Your task to perform on an android device: uninstall "Google Docs" Image 0: 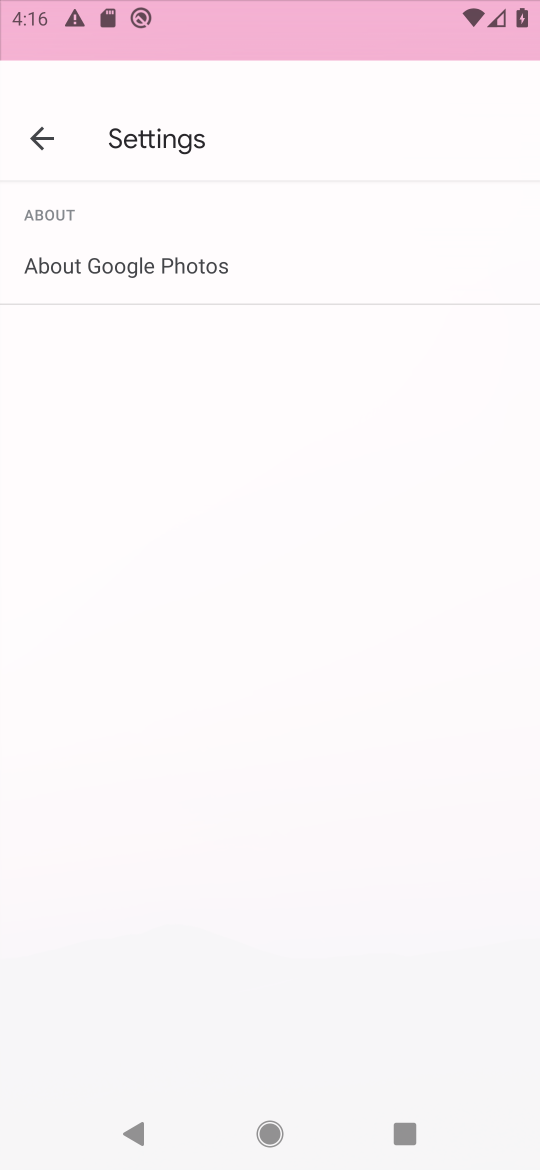
Step 0: click (500, 83)
Your task to perform on an android device: uninstall "Google Docs" Image 1: 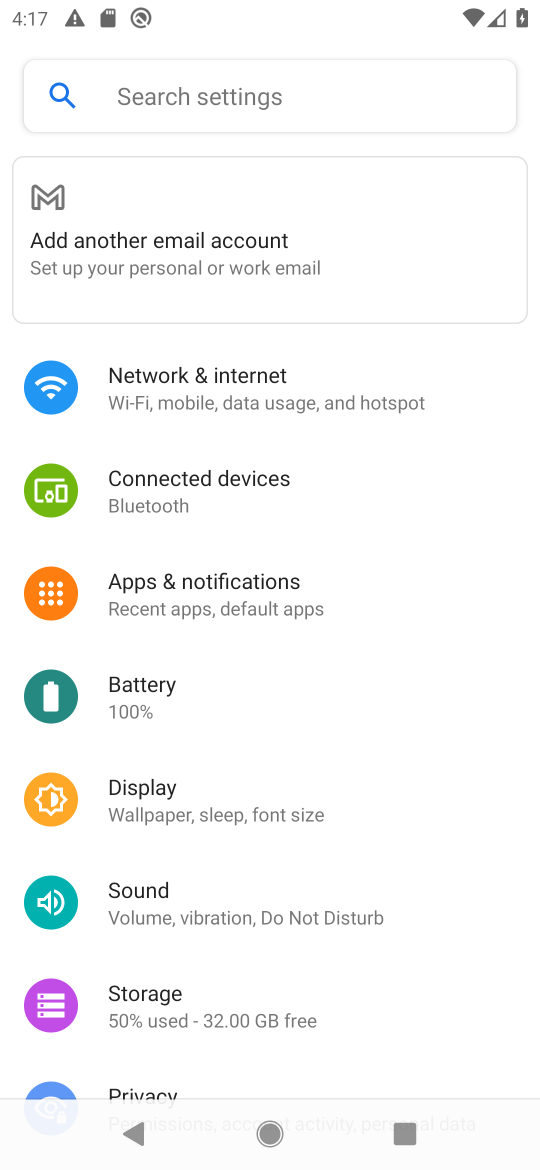
Step 1: press back button
Your task to perform on an android device: uninstall "Google Docs" Image 2: 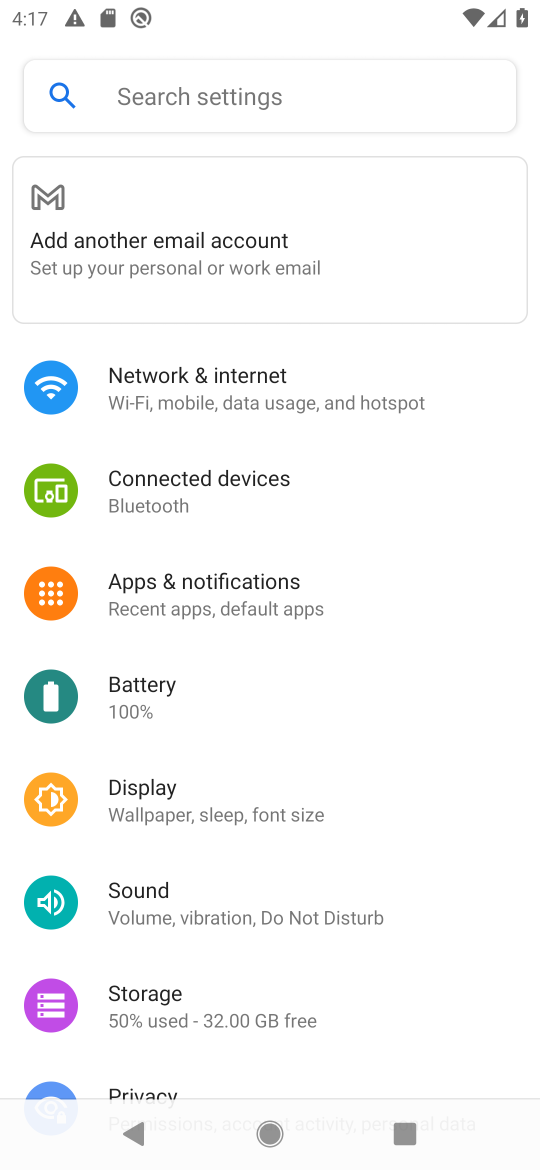
Step 2: press back button
Your task to perform on an android device: uninstall "Google Docs" Image 3: 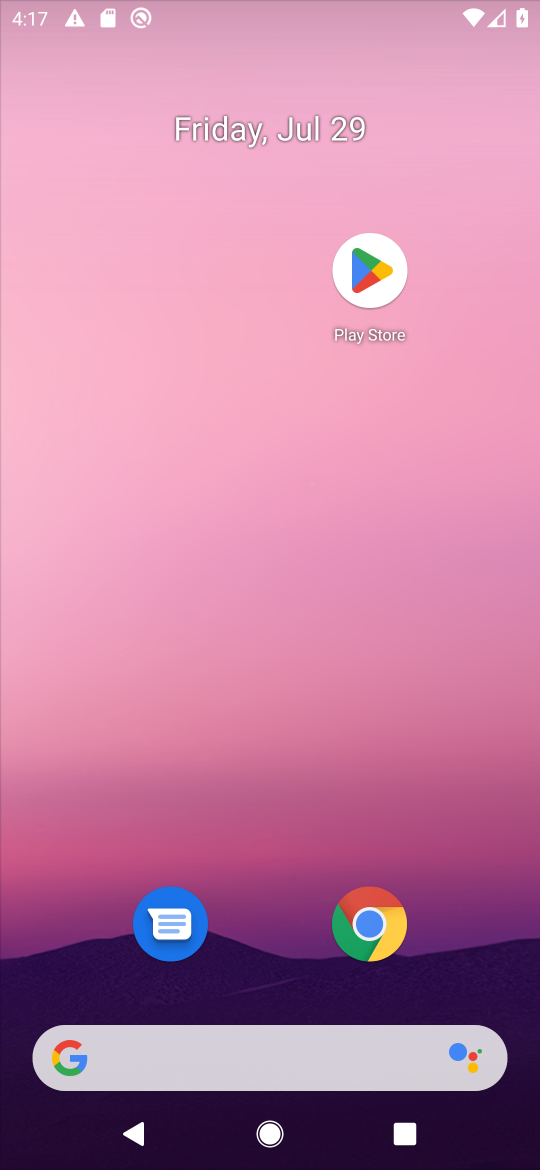
Step 3: press back button
Your task to perform on an android device: uninstall "Google Docs" Image 4: 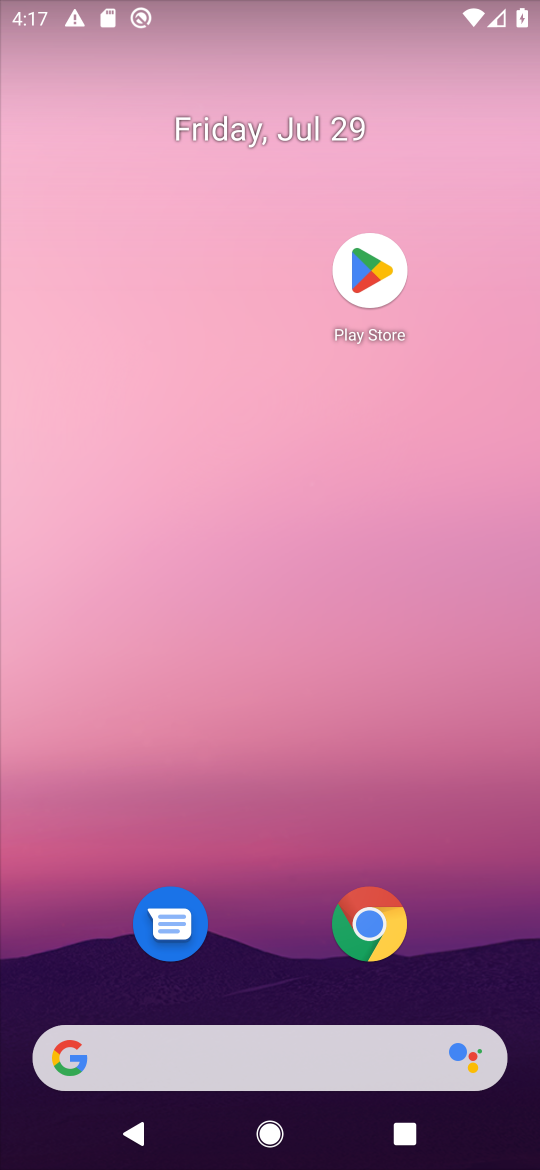
Step 4: drag from (360, 974) to (313, 143)
Your task to perform on an android device: uninstall "Google Docs" Image 5: 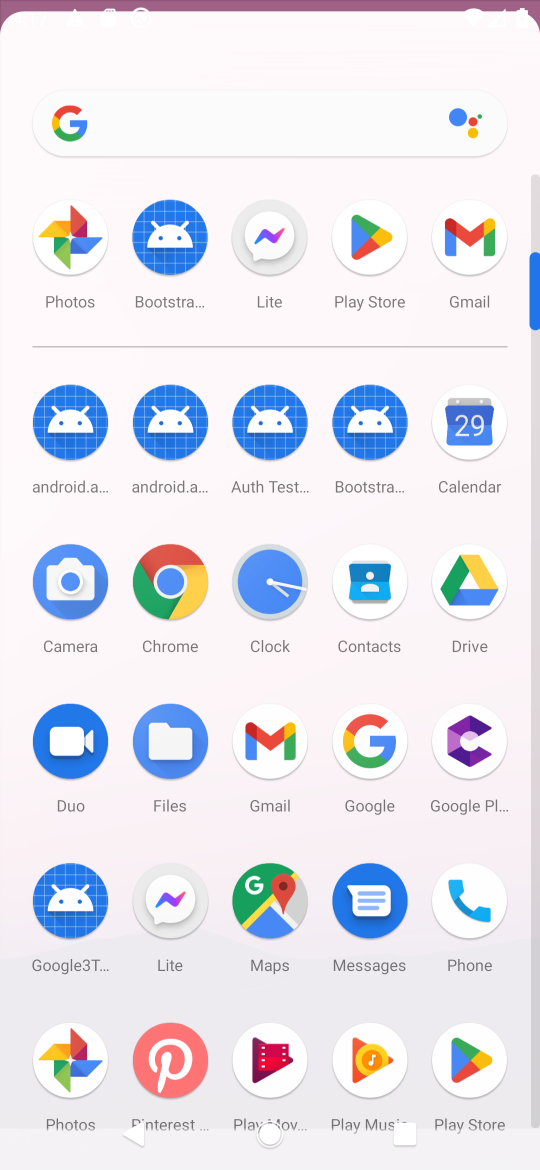
Step 5: drag from (284, 499) to (217, 160)
Your task to perform on an android device: uninstall "Google Docs" Image 6: 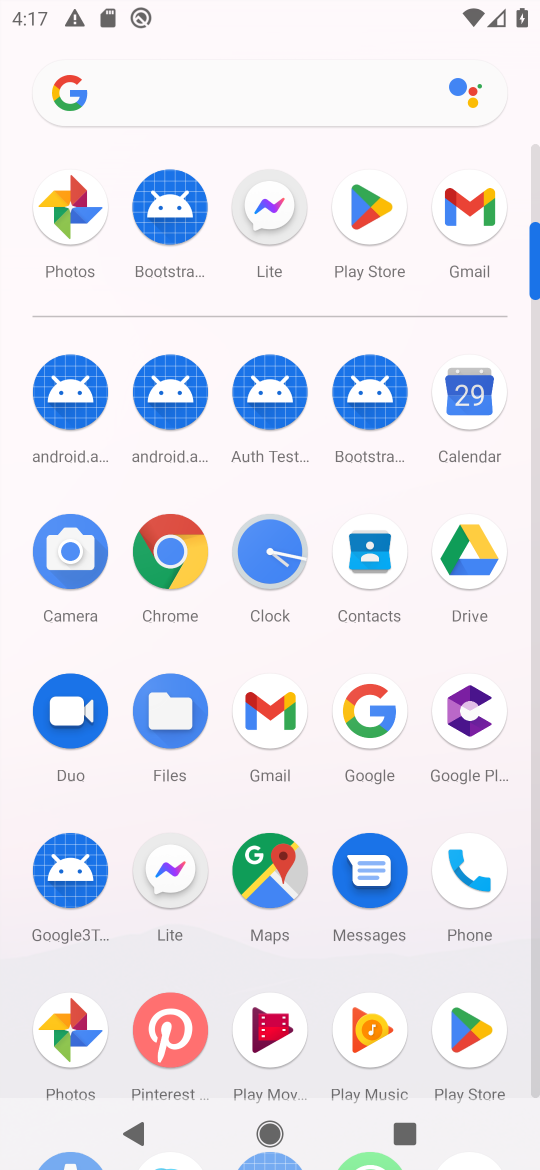
Step 6: click (364, 203)
Your task to perform on an android device: uninstall "Google Docs" Image 7: 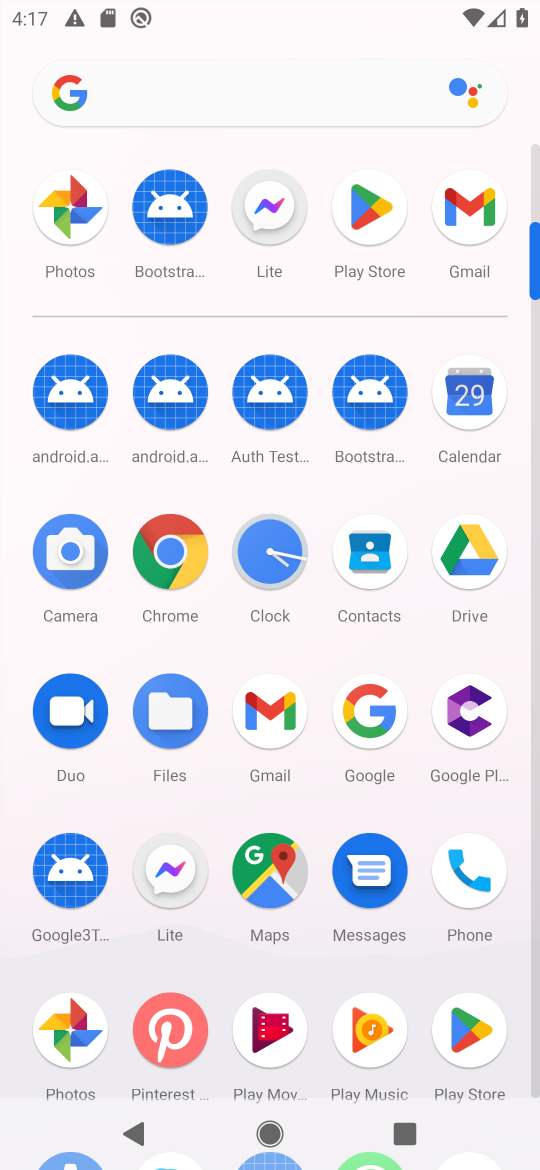
Step 7: click (364, 203)
Your task to perform on an android device: uninstall "Google Docs" Image 8: 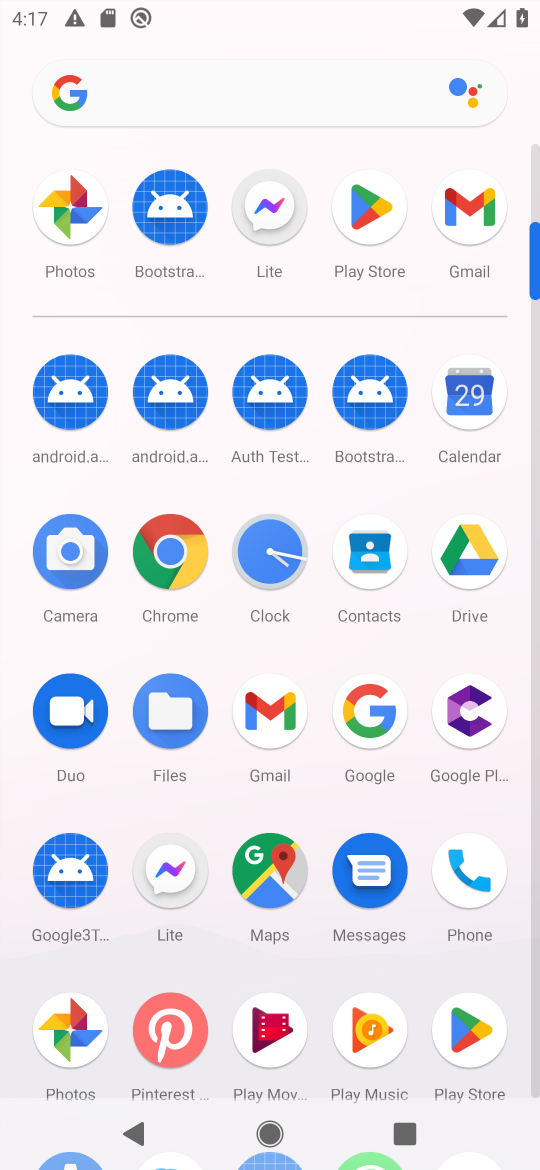
Step 8: click (370, 229)
Your task to perform on an android device: uninstall "Google Docs" Image 9: 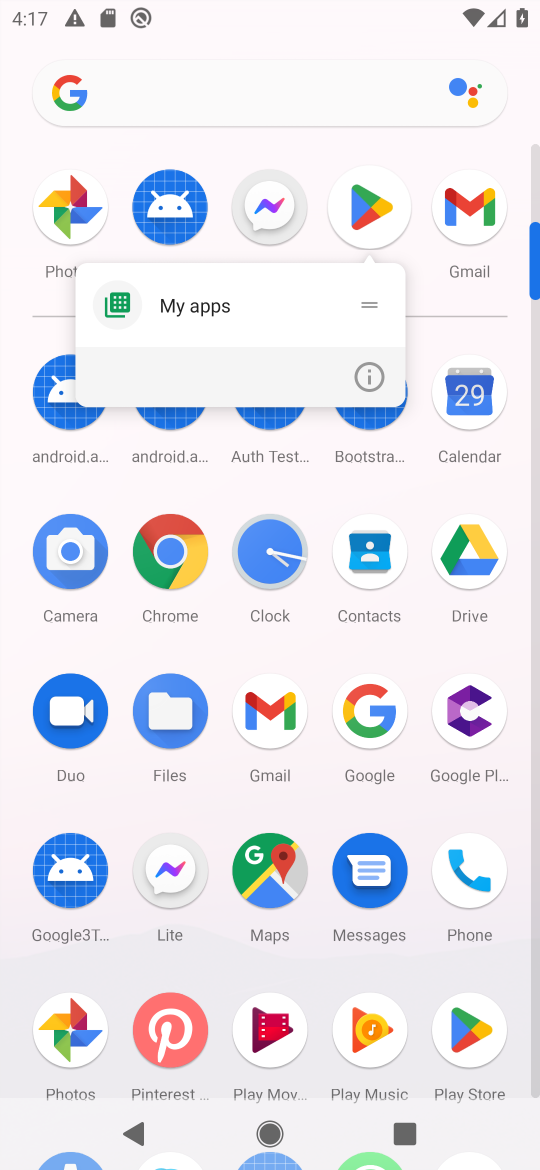
Step 9: click (367, 219)
Your task to perform on an android device: uninstall "Google Docs" Image 10: 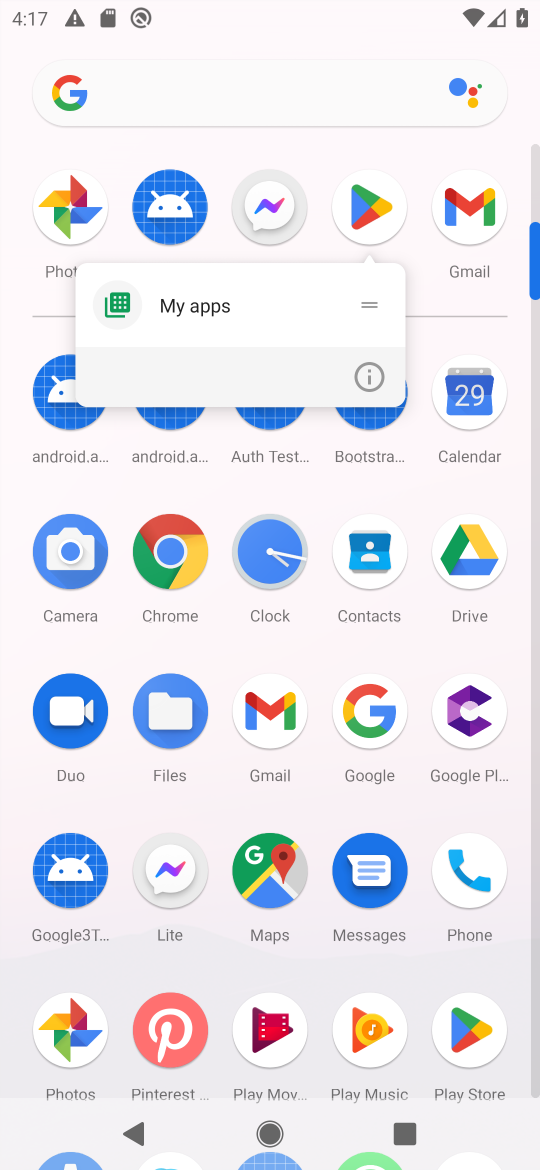
Step 10: click (352, 180)
Your task to perform on an android device: uninstall "Google Docs" Image 11: 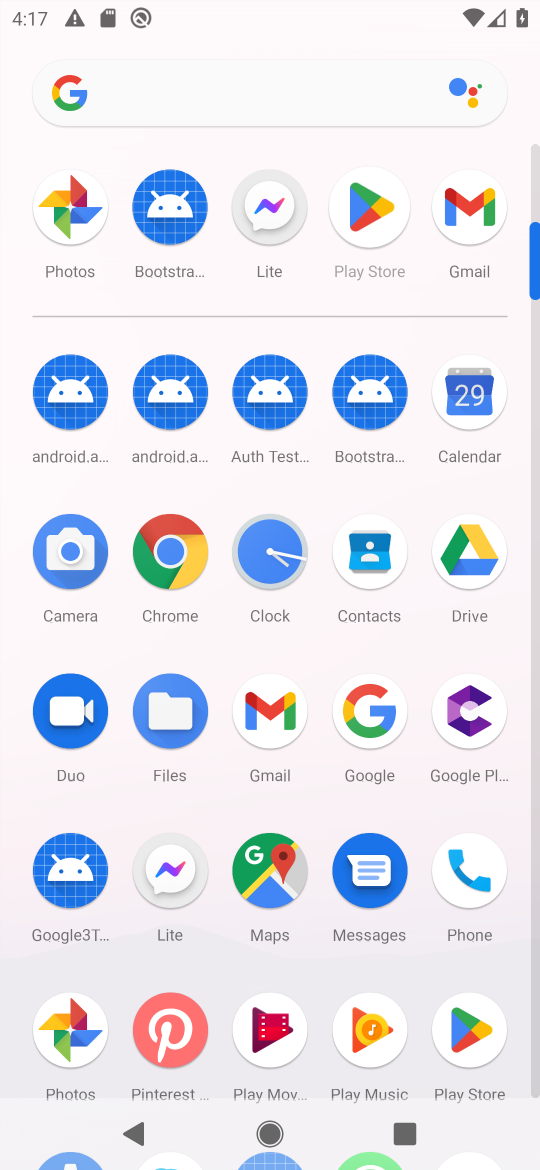
Step 11: click (358, 197)
Your task to perform on an android device: uninstall "Google Docs" Image 12: 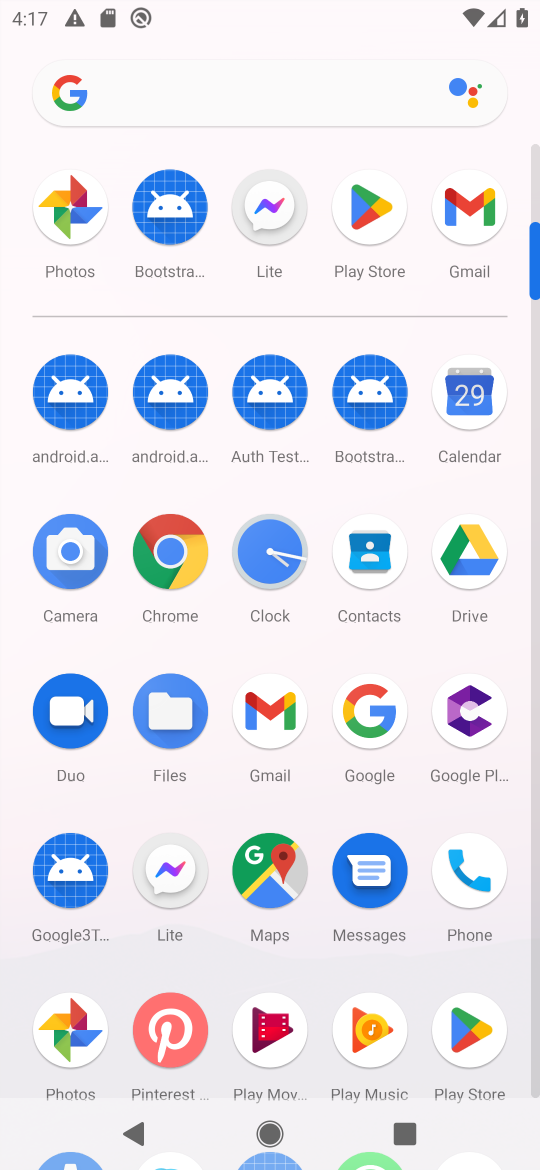
Step 12: click (364, 202)
Your task to perform on an android device: uninstall "Google Docs" Image 13: 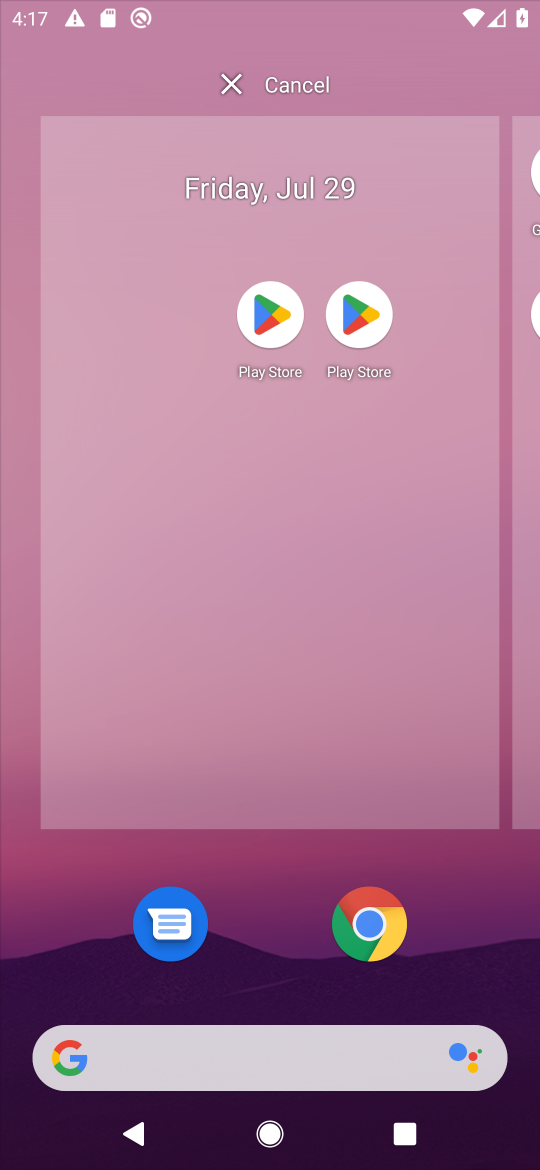
Step 13: click (366, 229)
Your task to perform on an android device: uninstall "Google Docs" Image 14: 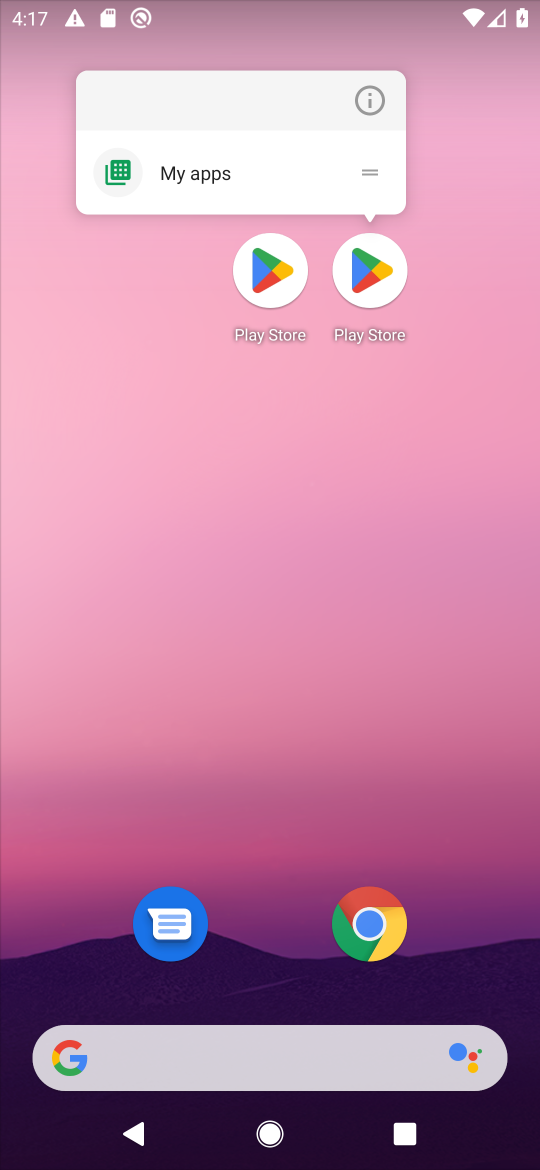
Step 14: drag from (222, 607) to (142, 107)
Your task to perform on an android device: uninstall "Google Docs" Image 15: 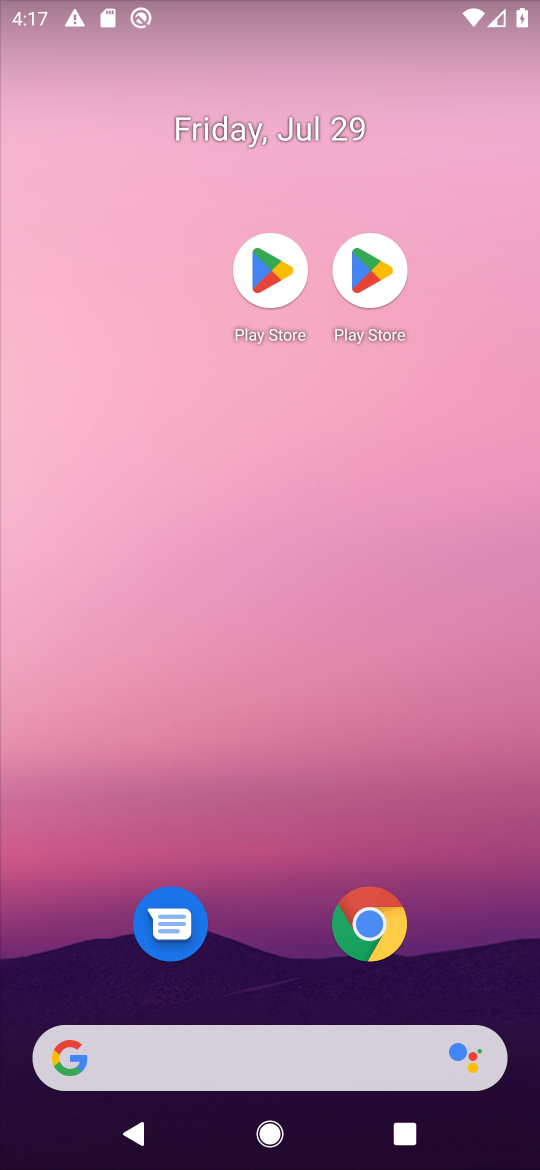
Step 15: drag from (219, 86) to (326, 10)
Your task to perform on an android device: uninstall "Google Docs" Image 16: 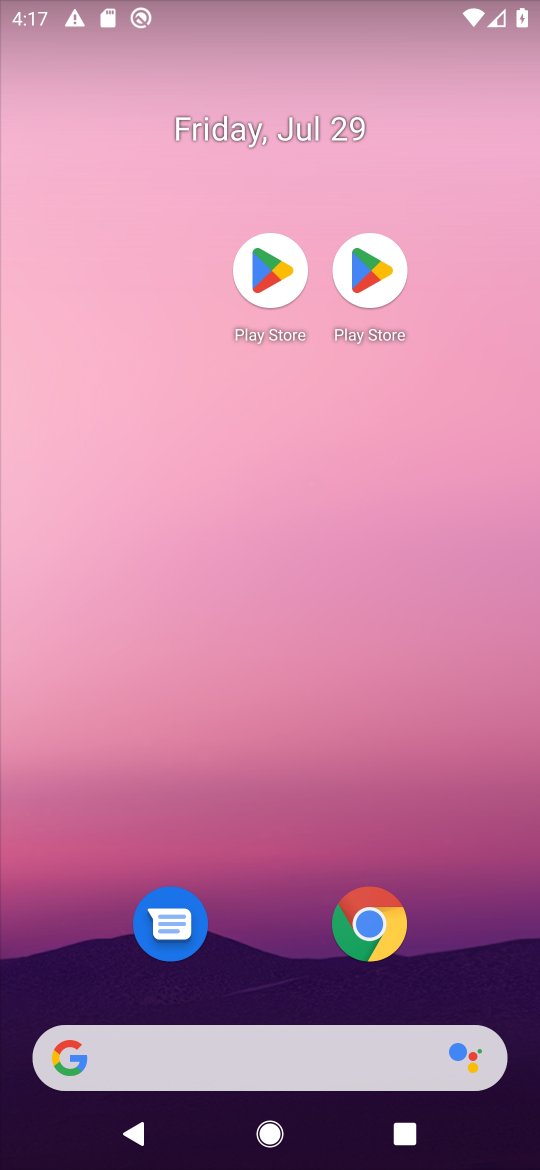
Step 16: drag from (249, 157) to (241, 0)
Your task to perform on an android device: uninstall "Google Docs" Image 17: 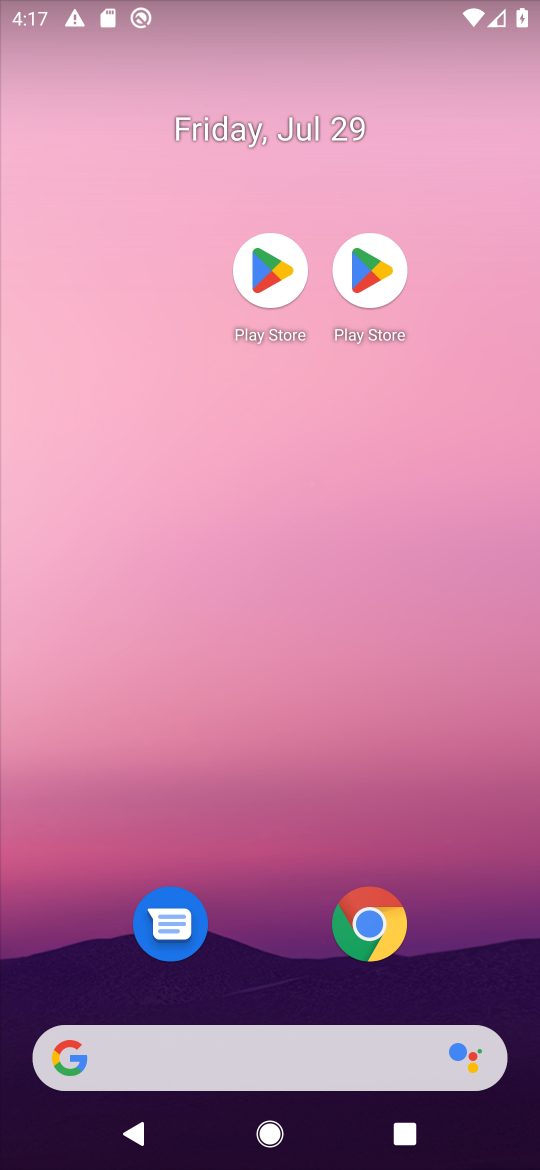
Step 17: drag from (187, 741) to (328, 70)
Your task to perform on an android device: uninstall "Google Docs" Image 18: 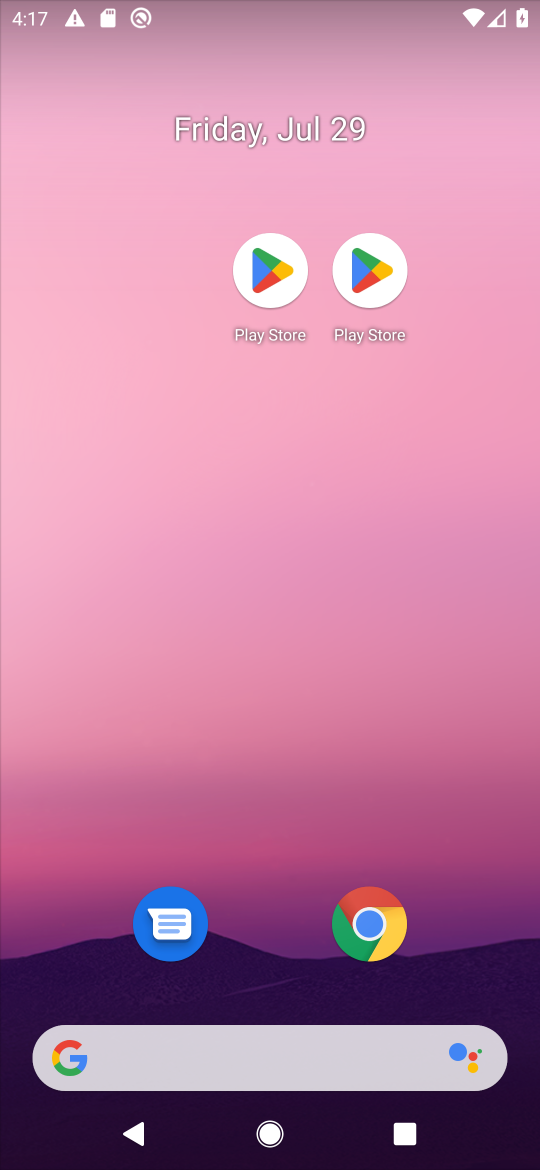
Step 18: drag from (327, 772) to (312, 205)
Your task to perform on an android device: uninstall "Google Docs" Image 19: 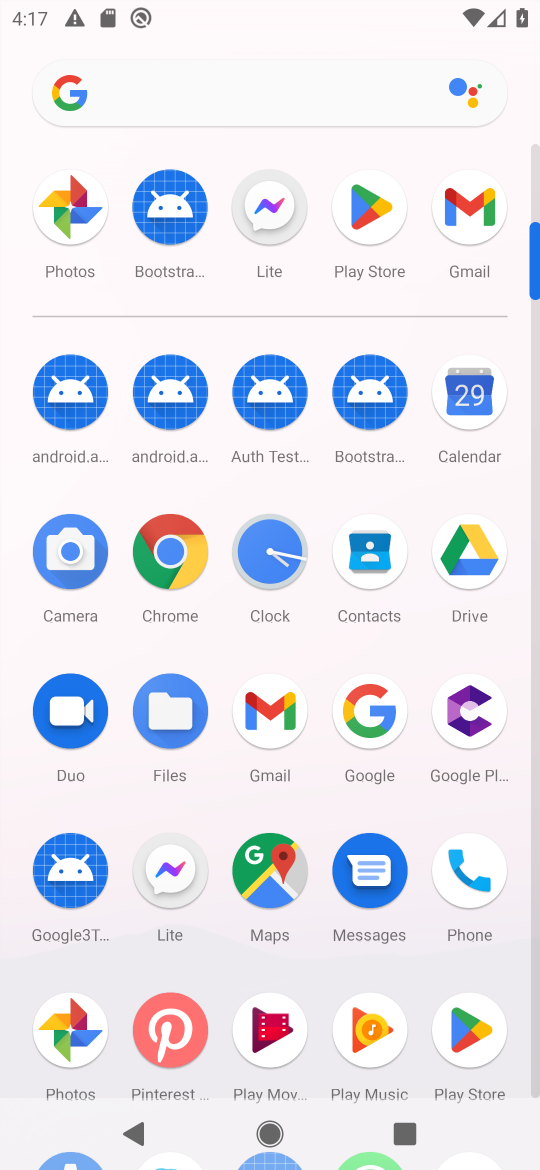
Step 19: click (371, 198)
Your task to perform on an android device: uninstall "Google Docs" Image 20: 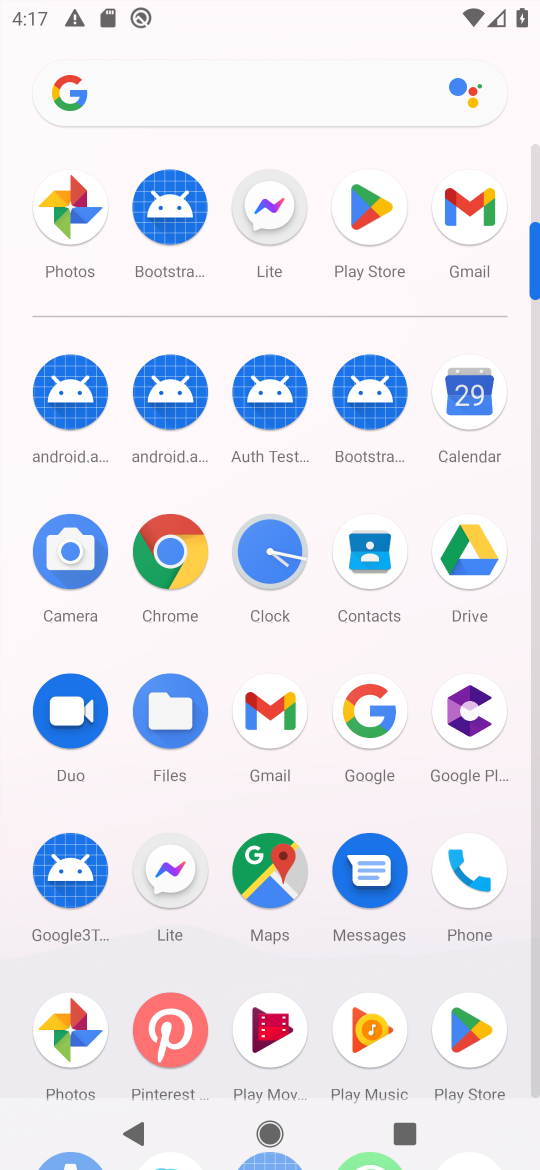
Step 20: click (378, 197)
Your task to perform on an android device: uninstall "Google Docs" Image 21: 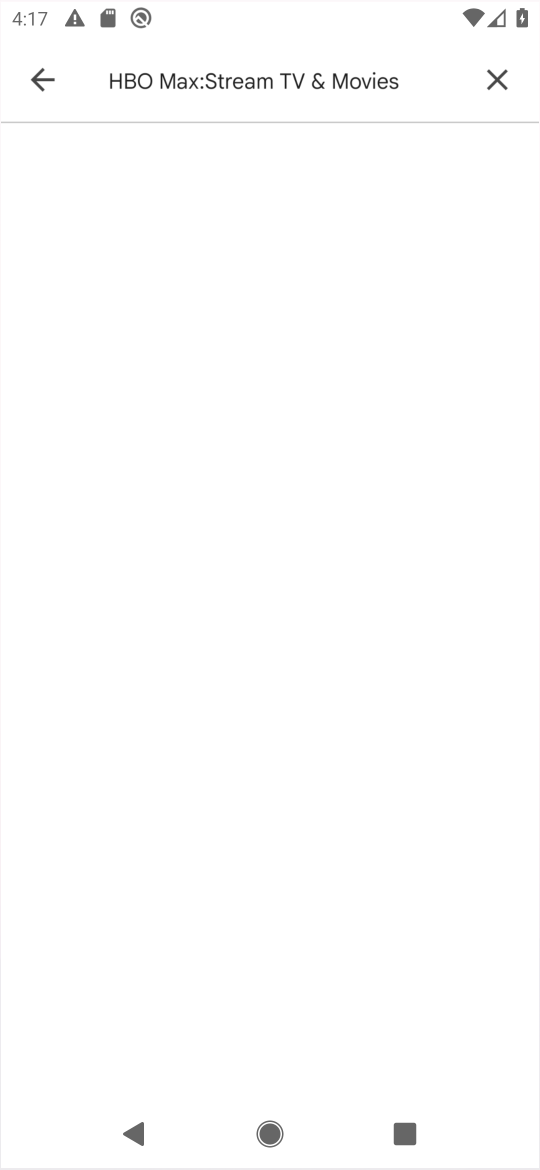
Step 21: click (374, 194)
Your task to perform on an android device: uninstall "Google Docs" Image 22: 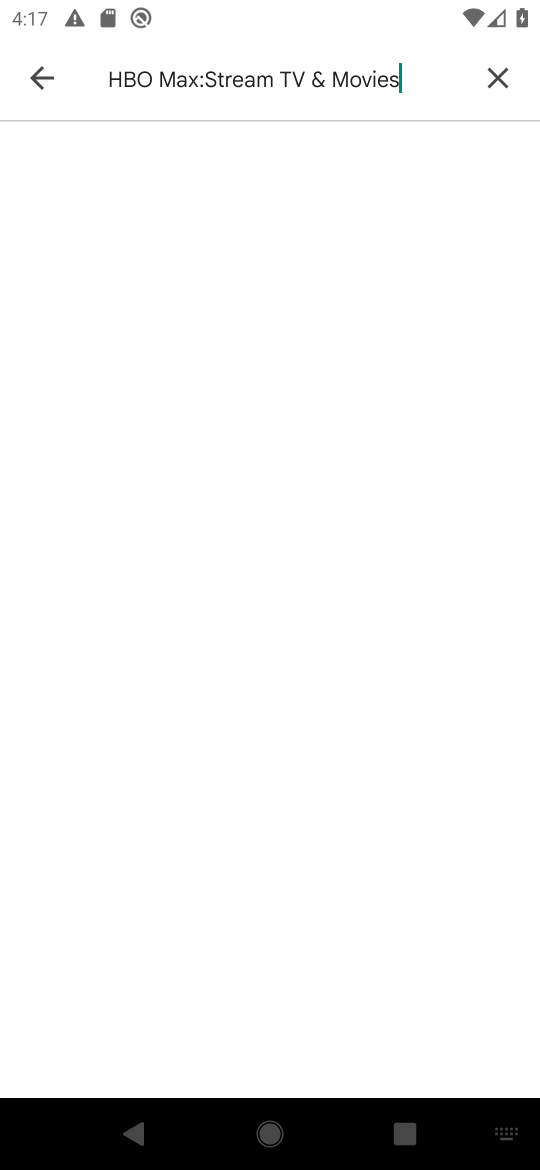
Step 22: click (472, 87)
Your task to perform on an android device: uninstall "Google Docs" Image 23: 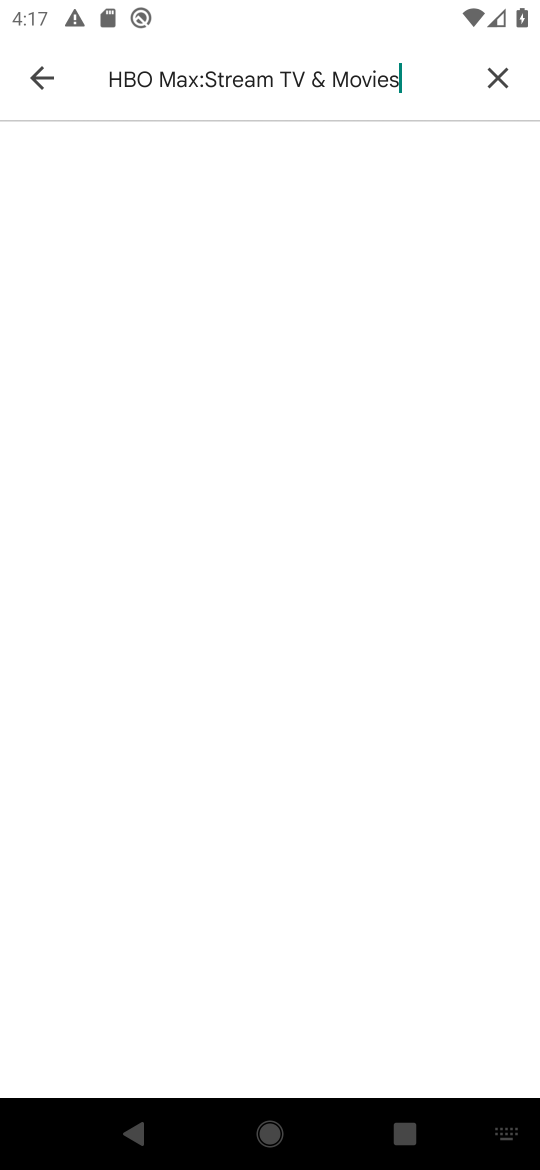
Step 23: click (489, 70)
Your task to perform on an android device: uninstall "Google Docs" Image 24: 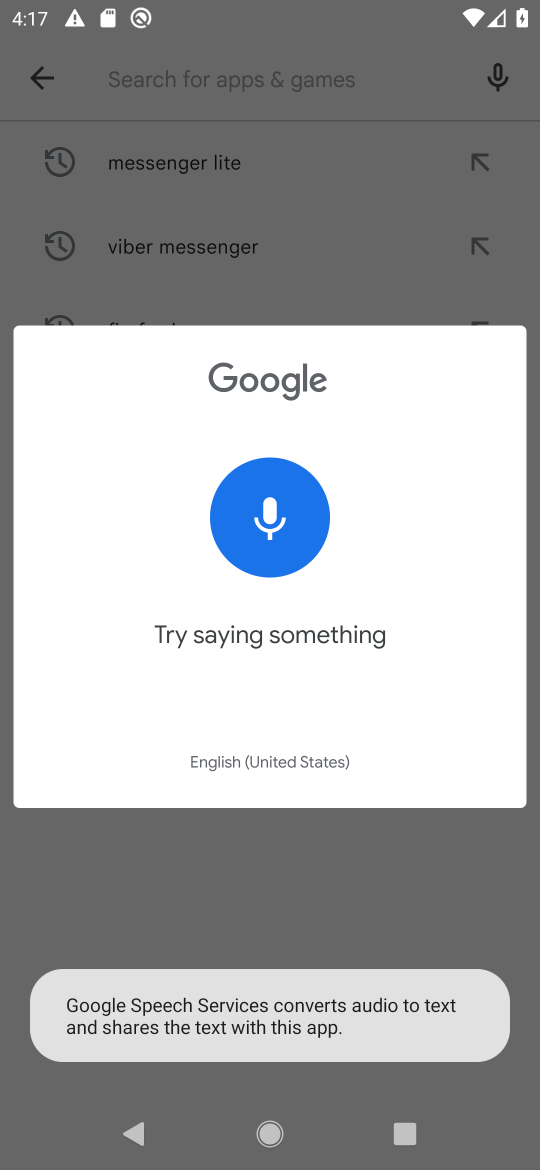
Step 24: click (248, 169)
Your task to perform on an android device: uninstall "Google Docs" Image 25: 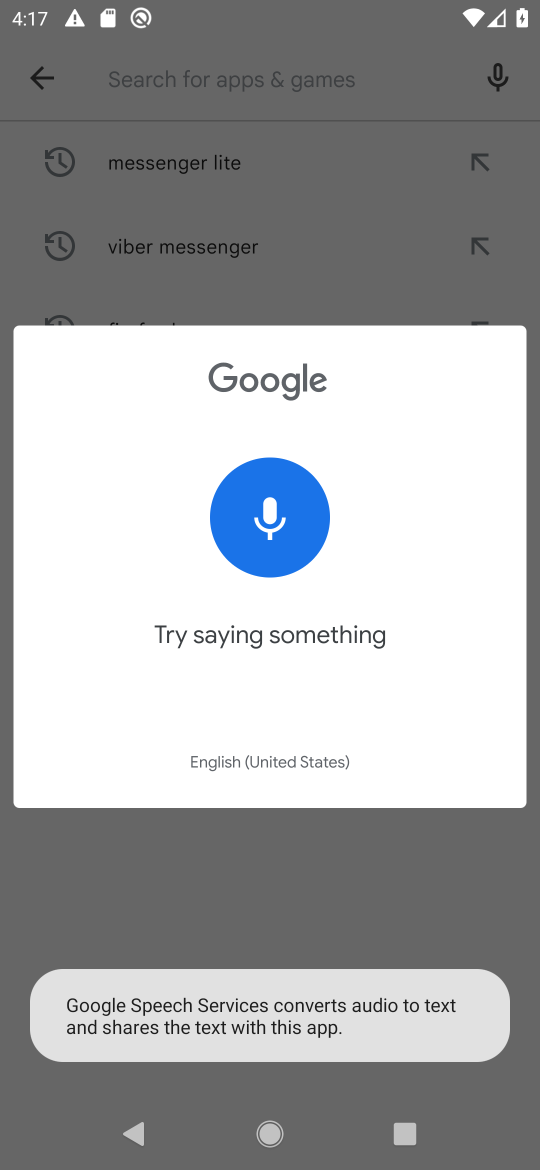
Step 25: click (289, 239)
Your task to perform on an android device: uninstall "Google Docs" Image 26: 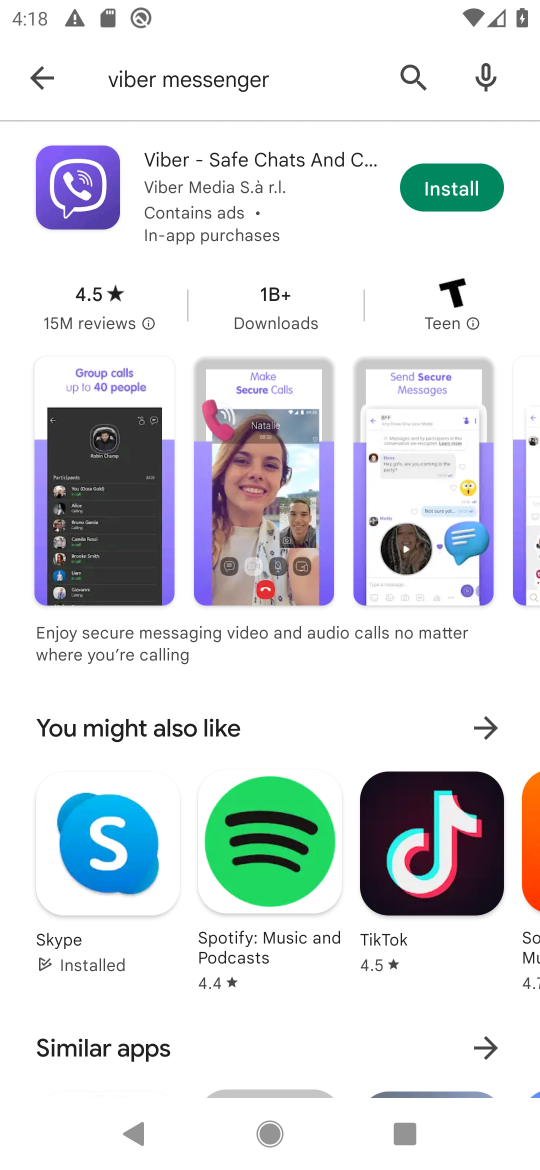
Step 26: click (41, 66)
Your task to perform on an android device: uninstall "Google Docs" Image 27: 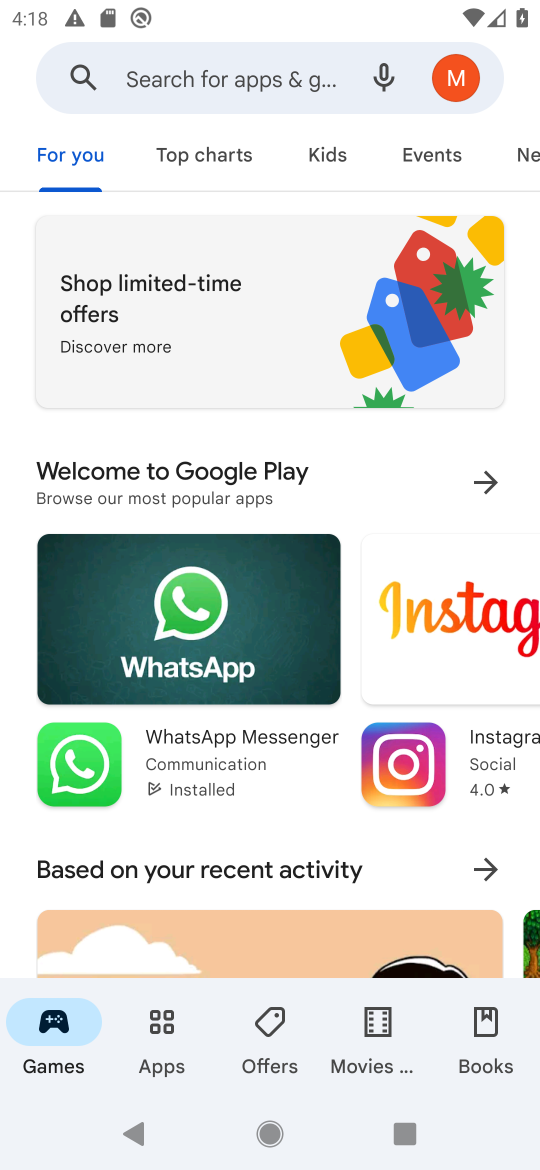
Step 27: click (136, 71)
Your task to perform on an android device: uninstall "Google Docs" Image 28: 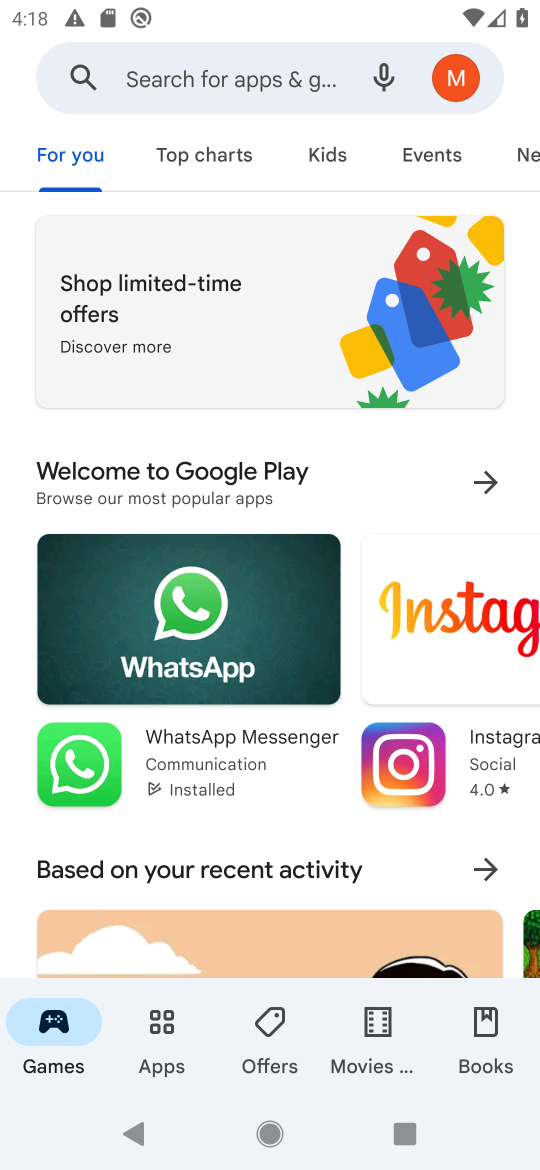
Step 28: click (136, 71)
Your task to perform on an android device: uninstall "Google Docs" Image 29: 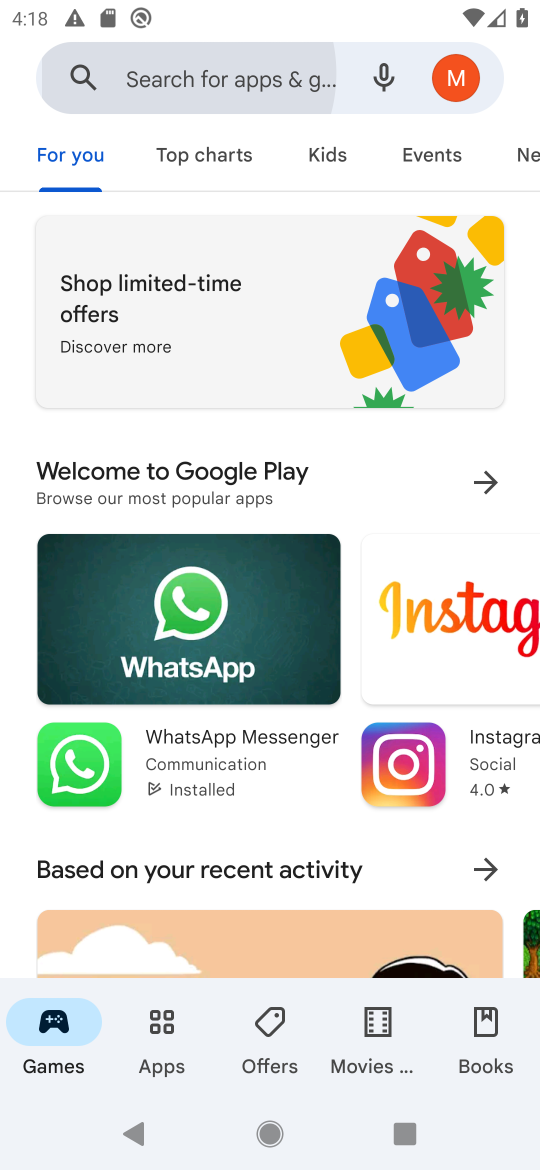
Step 29: click (136, 71)
Your task to perform on an android device: uninstall "Google Docs" Image 30: 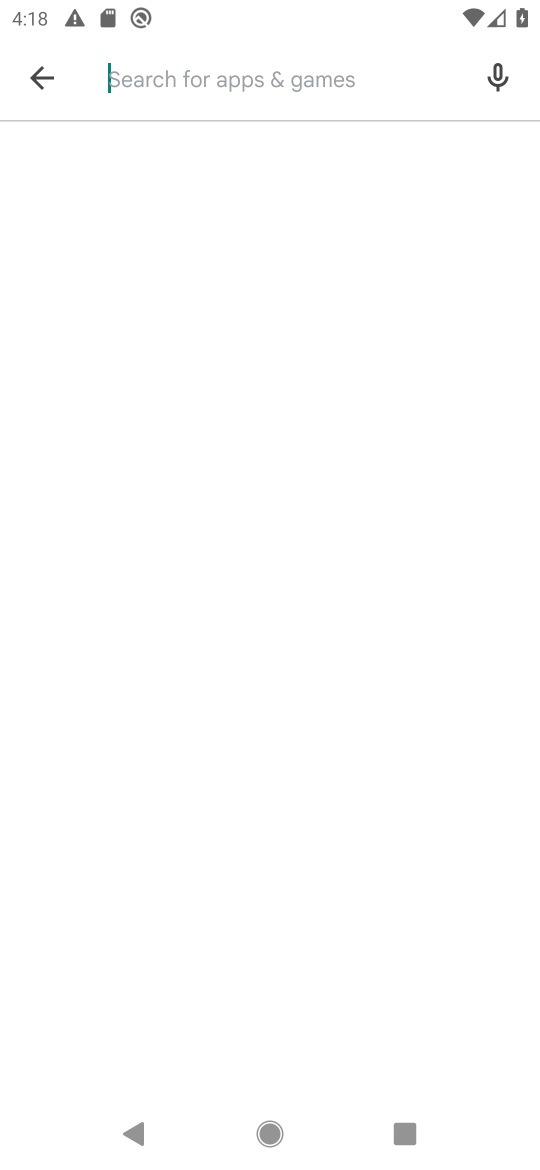
Step 30: click (136, 71)
Your task to perform on an android device: uninstall "Google Docs" Image 31: 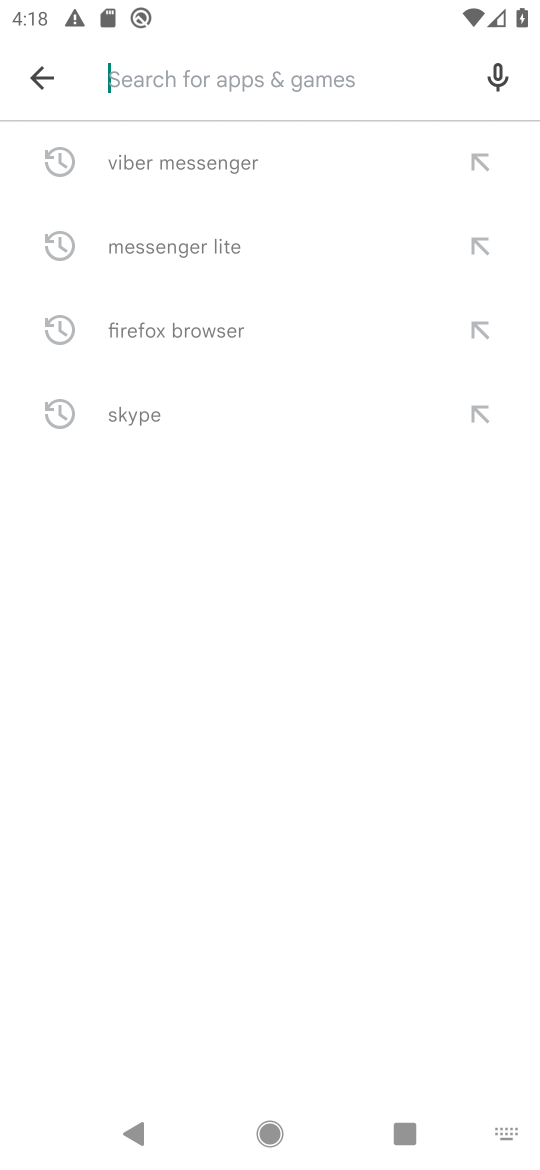
Step 31: click (136, 71)
Your task to perform on an android device: uninstall "Google Docs" Image 32: 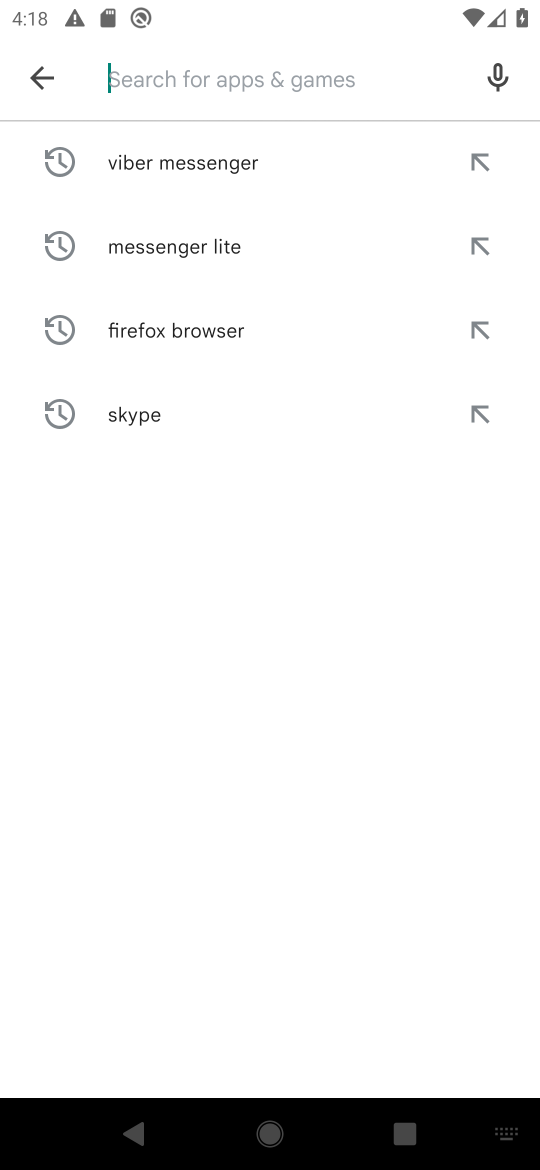
Step 32: type "Google Docs"
Your task to perform on an android device: uninstall "Google Docs" Image 33: 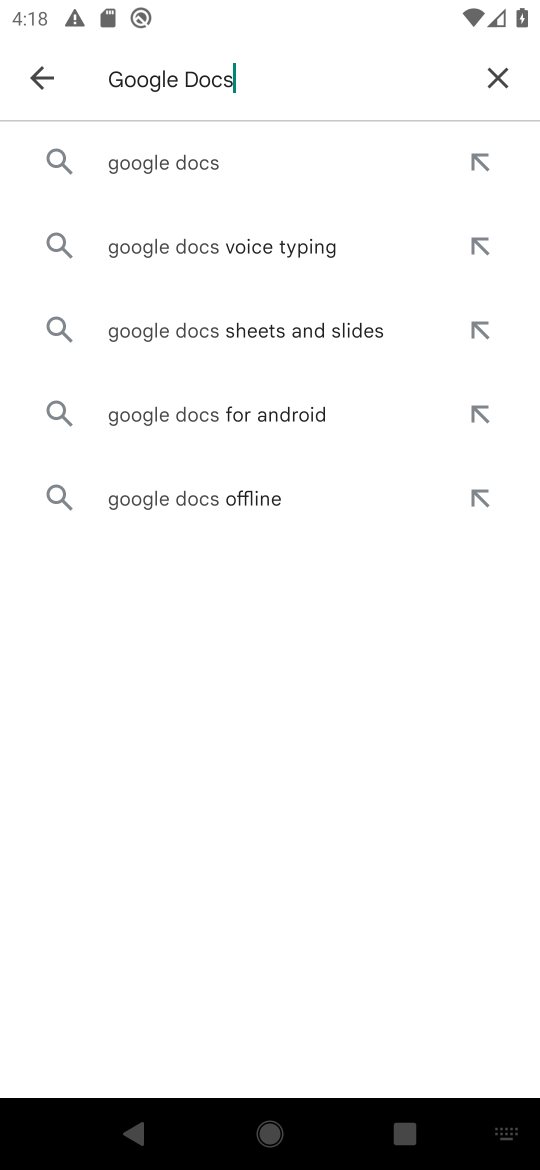
Step 33: click (177, 149)
Your task to perform on an android device: uninstall "Google Docs" Image 34: 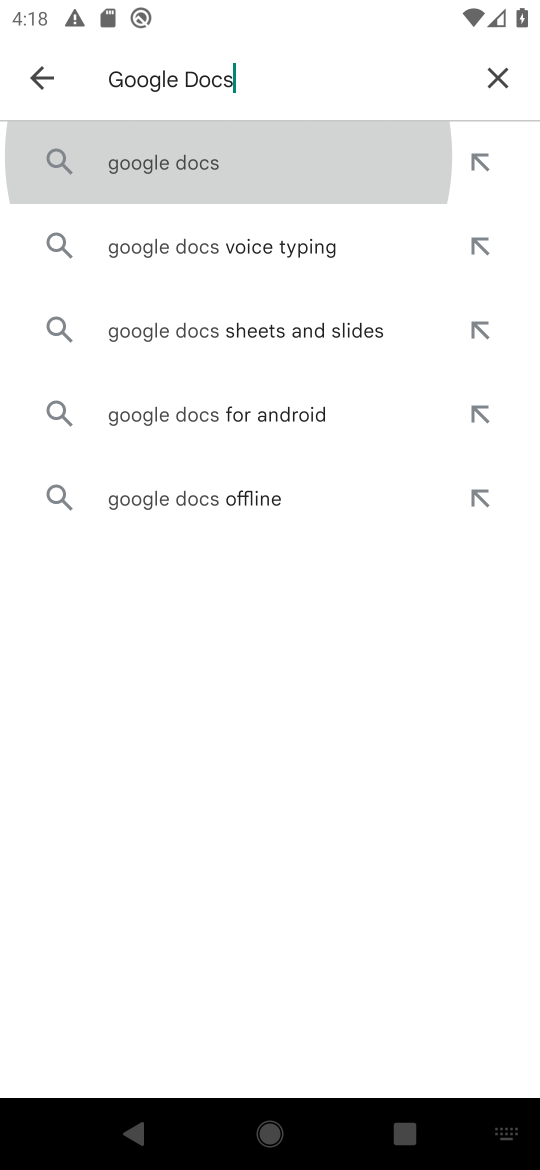
Step 34: click (177, 151)
Your task to perform on an android device: uninstall "Google Docs" Image 35: 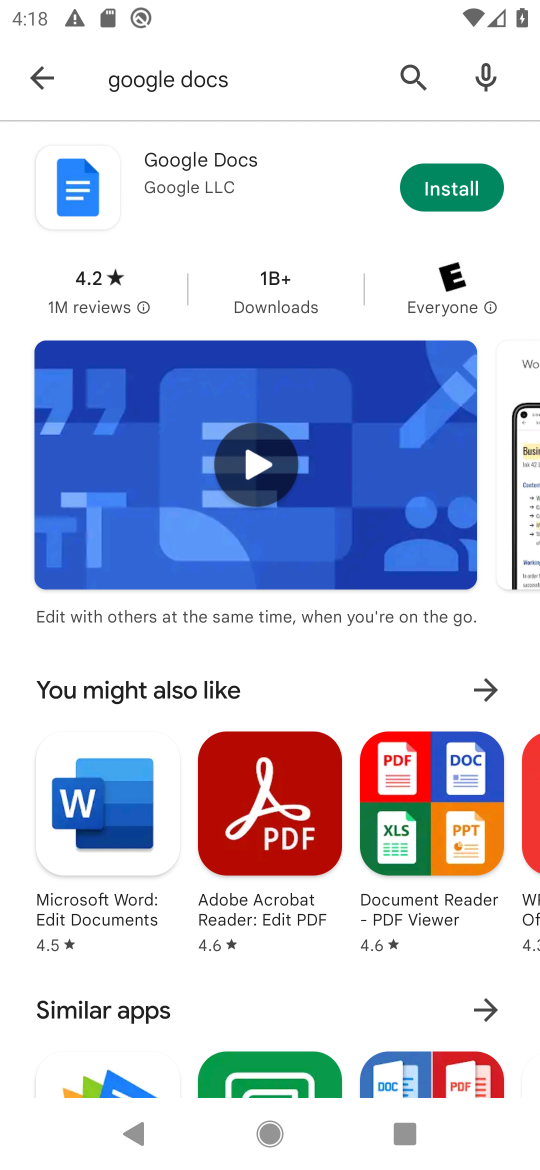
Step 35: click (418, 180)
Your task to perform on an android device: uninstall "Google Docs" Image 36: 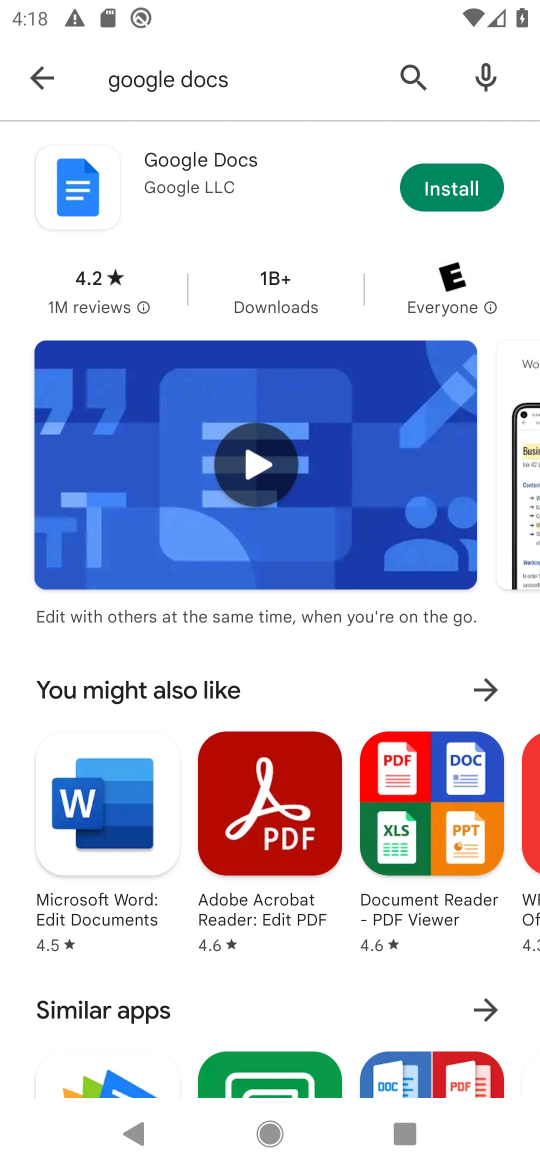
Step 36: click (419, 180)
Your task to perform on an android device: uninstall "Google Docs" Image 37: 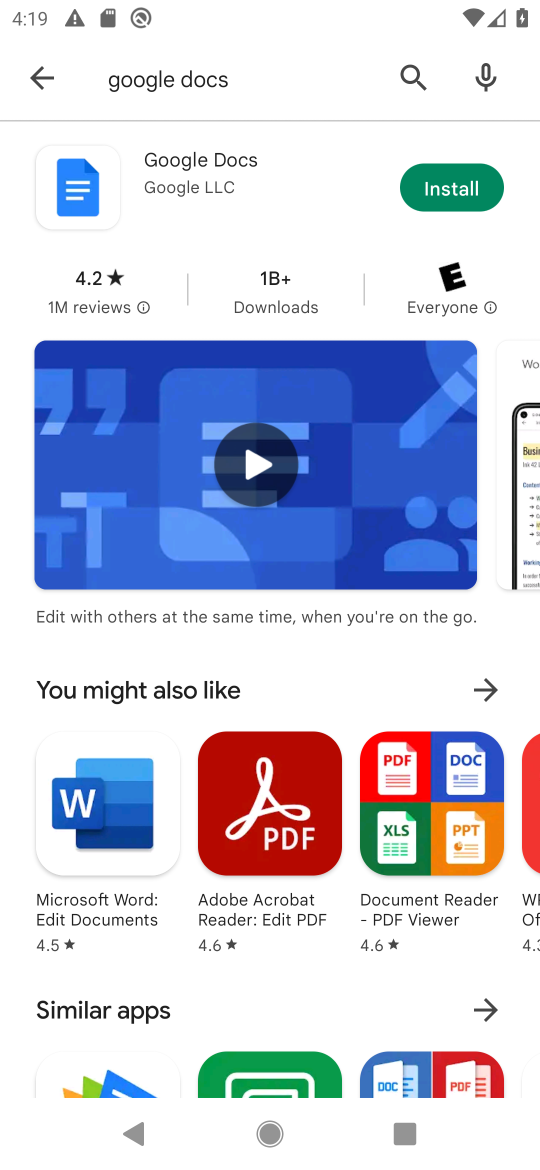
Step 37: click (451, 201)
Your task to perform on an android device: uninstall "Google Docs" Image 38: 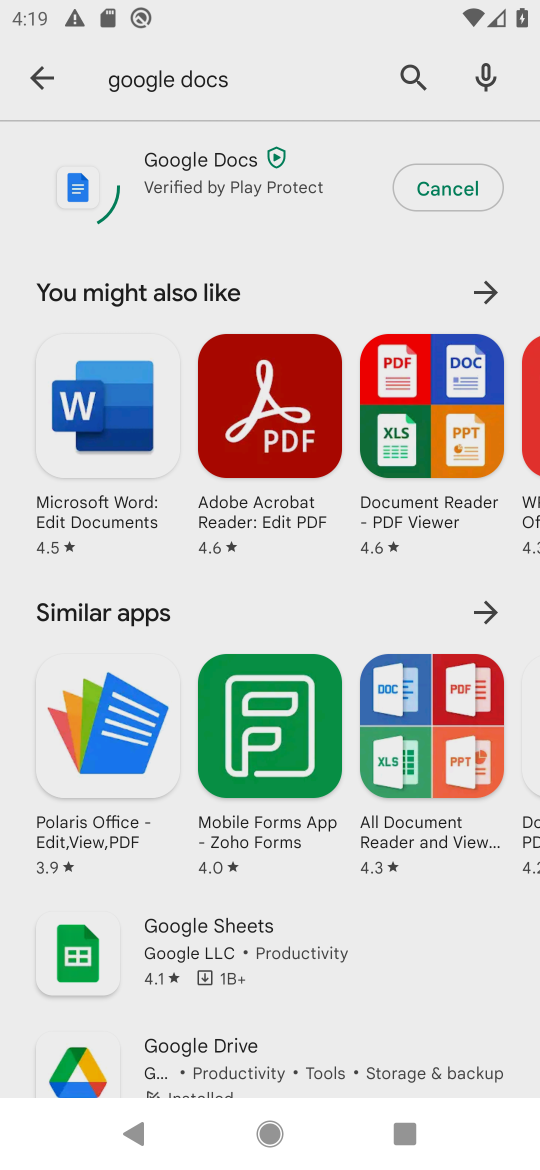
Step 38: click (470, 180)
Your task to perform on an android device: uninstall "Google Docs" Image 39: 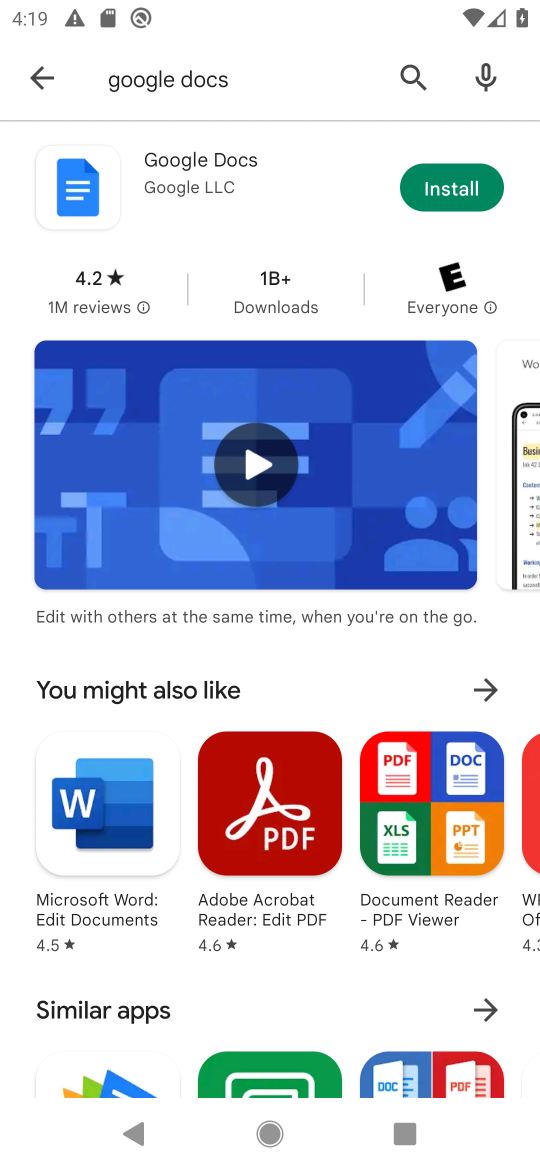
Step 39: task complete